Your task to perform on an android device: check android version Image 0: 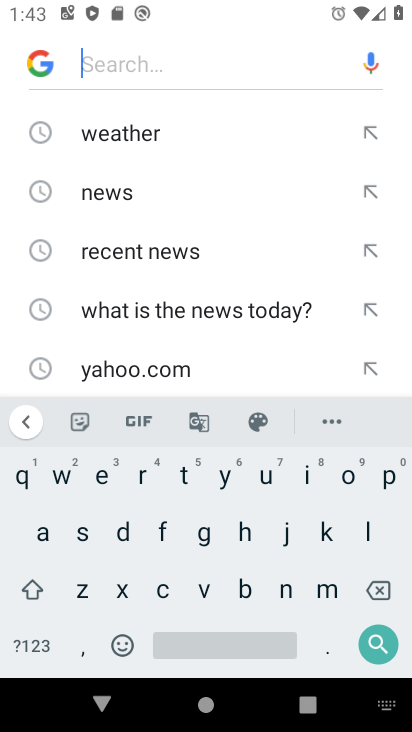
Step 0: press home button
Your task to perform on an android device: check android version Image 1: 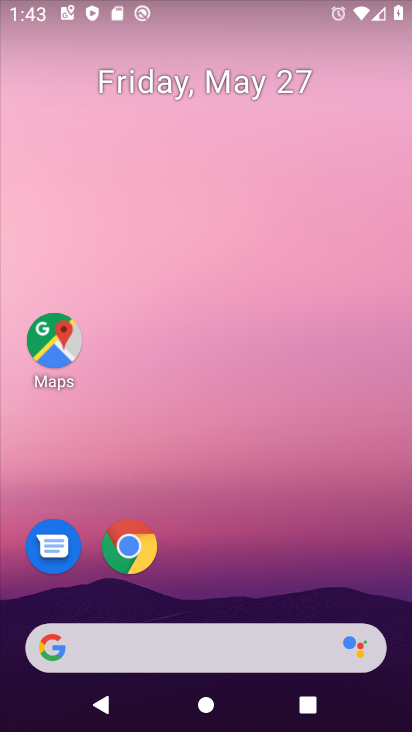
Step 1: drag from (253, 661) to (189, 209)
Your task to perform on an android device: check android version Image 2: 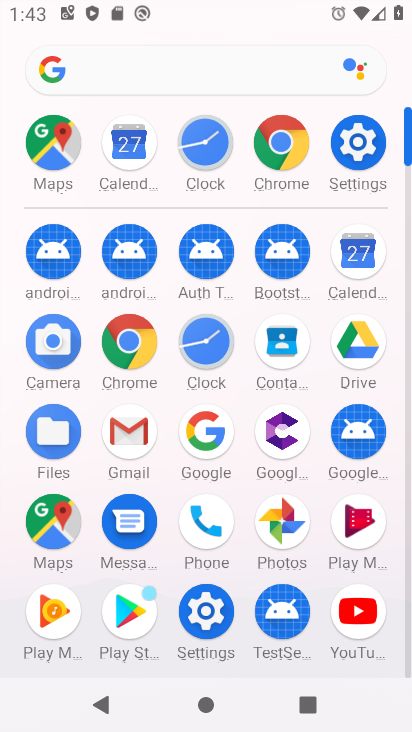
Step 2: click (275, 141)
Your task to perform on an android device: check android version Image 3: 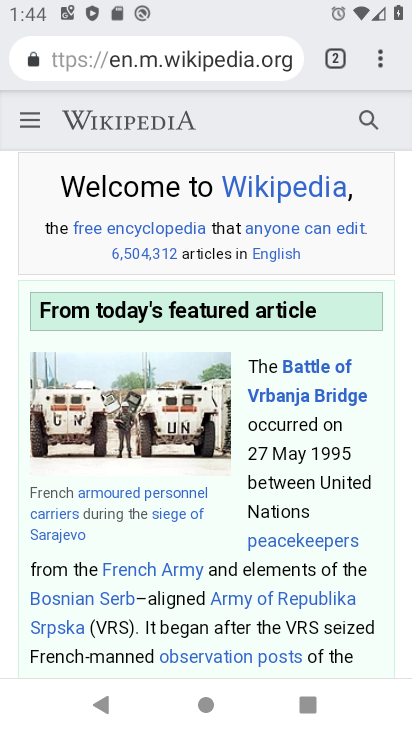
Step 3: click (377, 68)
Your task to perform on an android device: check android version Image 4: 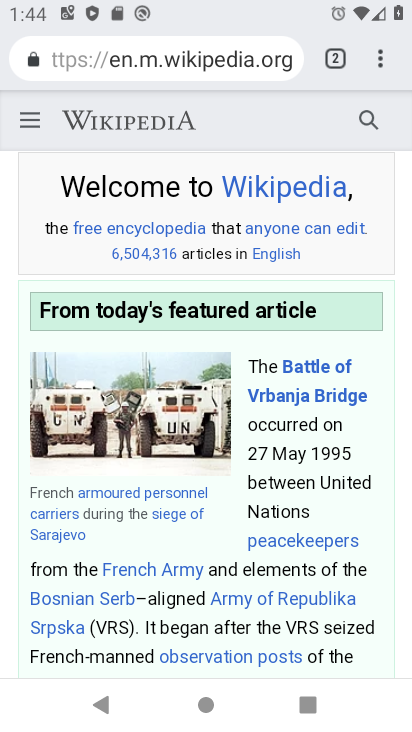
Step 4: click (379, 63)
Your task to perform on an android device: check android version Image 5: 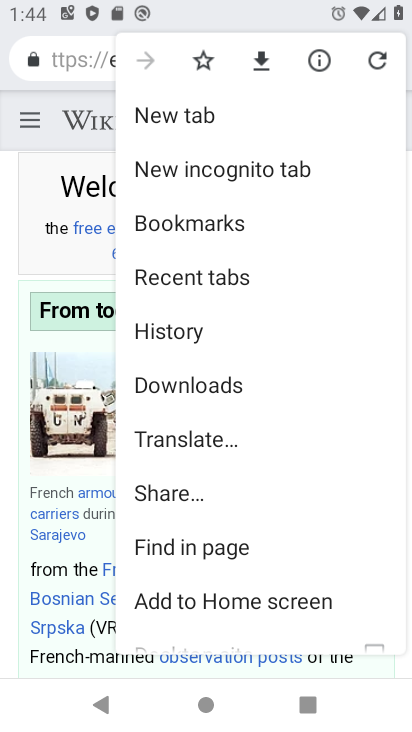
Step 5: drag from (252, 586) to (268, 311)
Your task to perform on an android device: check android version Image 6: 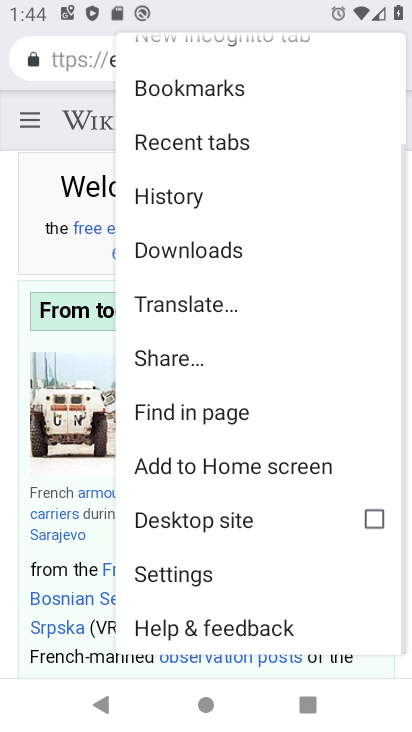
Step 6: click (205, 568)
Your task to perform on an android device: check android version Image 7: 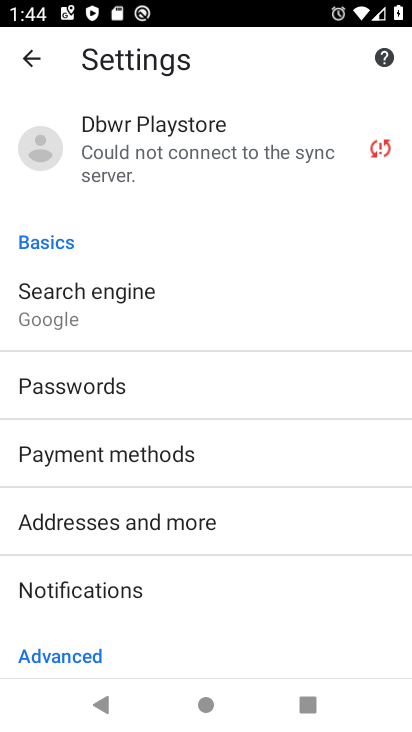
Step 7: drag from (166, 651) to (205, 367)
Your task to perform on an android device: check android version Image 8: 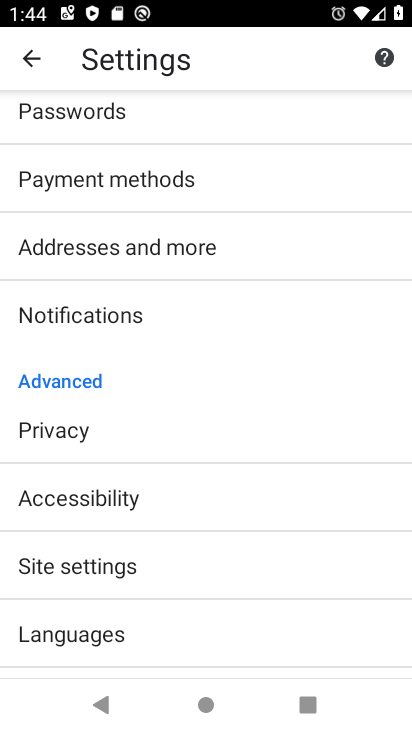
Step 8: drag from (158, 620) to (170, 353)
Your task to perform on an android device: check android version Image 9: 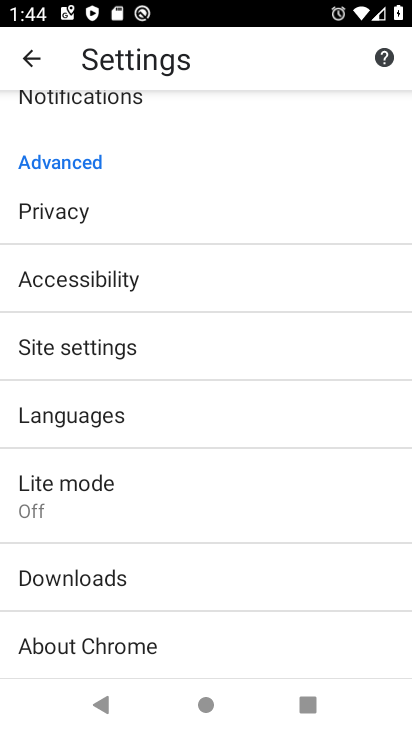
Step 9: click (112, 647)
Your task to perform on an android device: check android version Image 10: 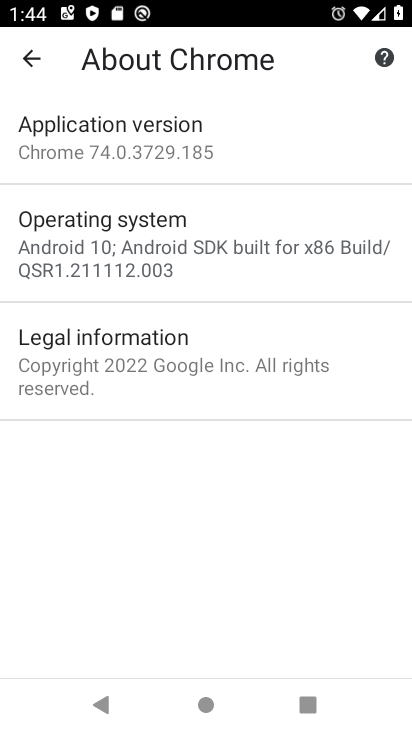
Step 10: click (147, 123)
Your task to perform on an android device: check android version Image 11: 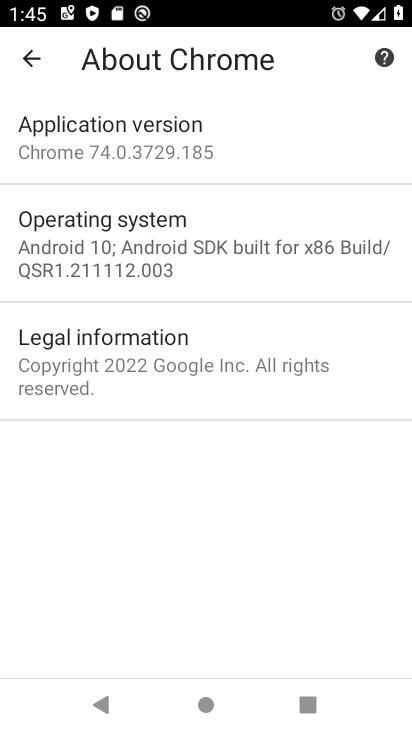
Step 11: task complete